Your task to perform on an android device: open chrome and create a bookmark for the current page Image 0: 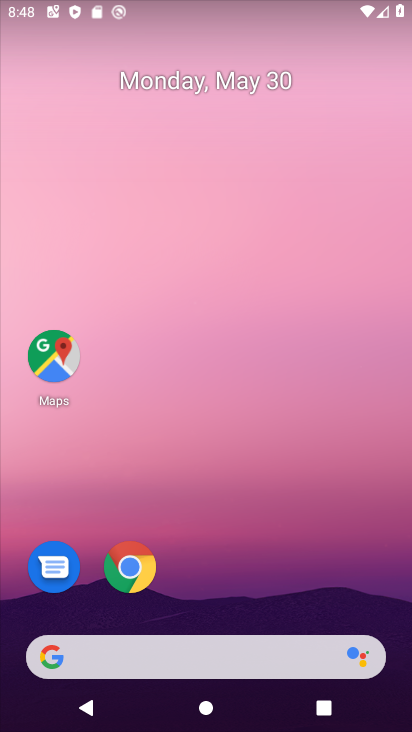
Step 0: drag from (236, 530) to (191, 118)
Your task to perform on an android device: open chrome and create a bookmark for the current page Image 1: 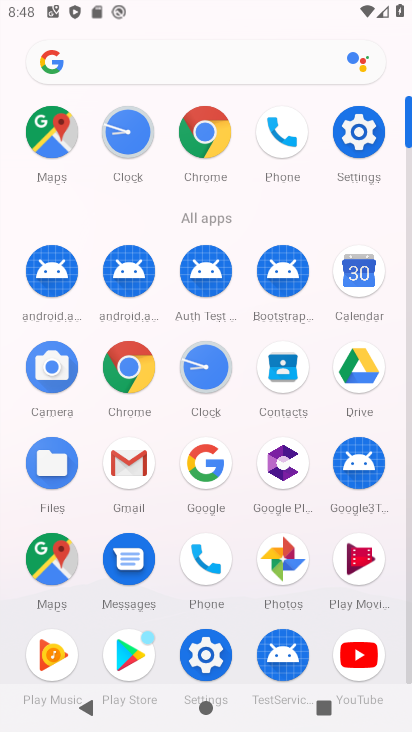
Step 1: click (210, 145)
Your task to perform on an android device: open chrome and create a bookmark for the current page Image 2: 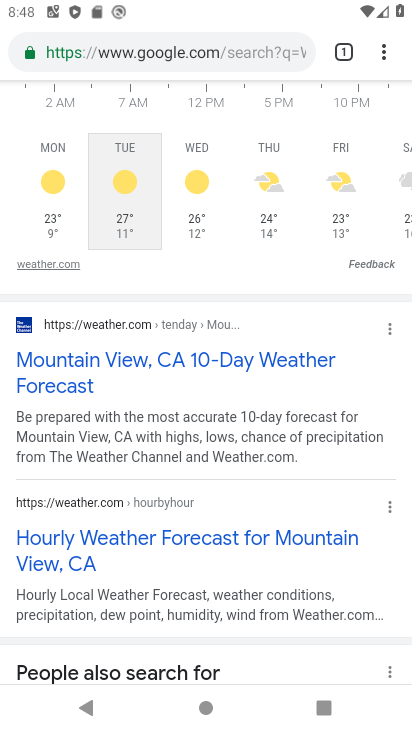
Step 2: click (392, 60)
Your task to perform on an android device: open chrome and create a bookmark for the current page Image 3: 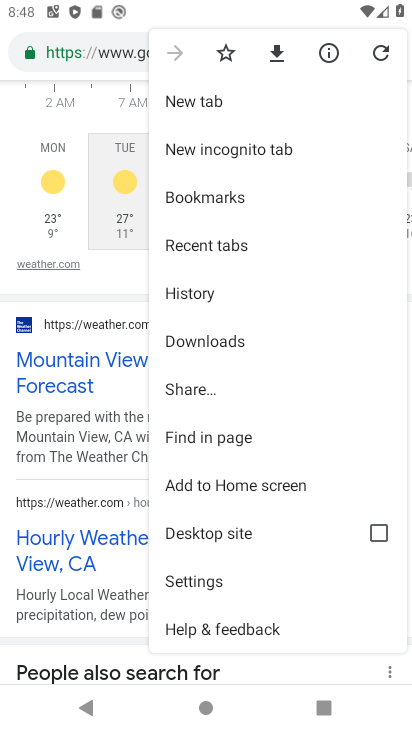
Step 3: click (224, 51)
Your task to perform on an android device: open chrome and create a bookmark for the current page Image 4: 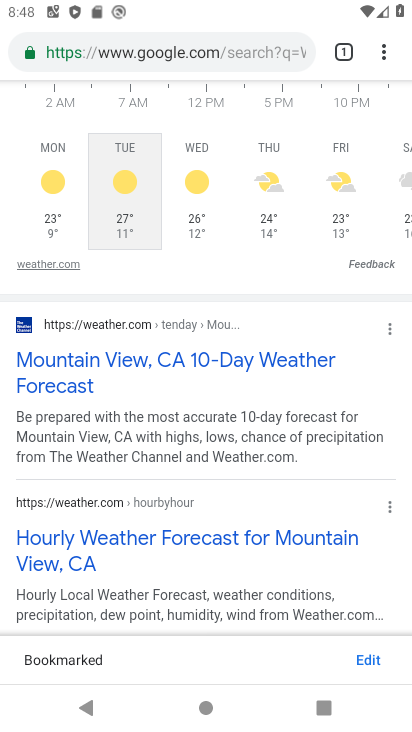
Step 4: task complete